Your task to perform on an android device: Search for "dell xps" on bestbuy.com, select the first entry, and add it to the cart. Image 0: 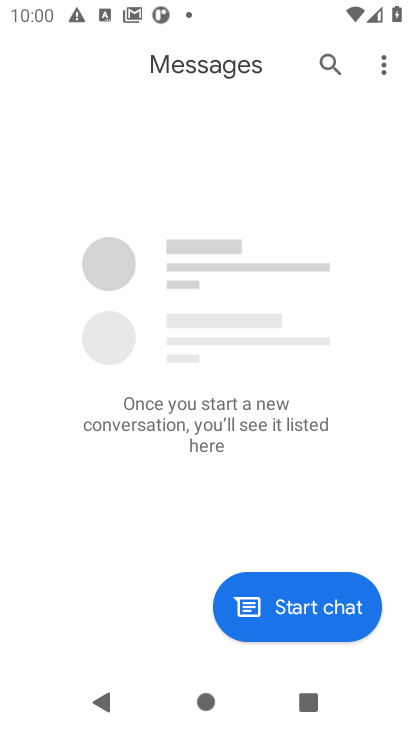
Step 0: press home button
Your task to perform on an android device: Search for "dell xps" on bestbuy.com, select the first entry, and add it to the cart. Image 1: 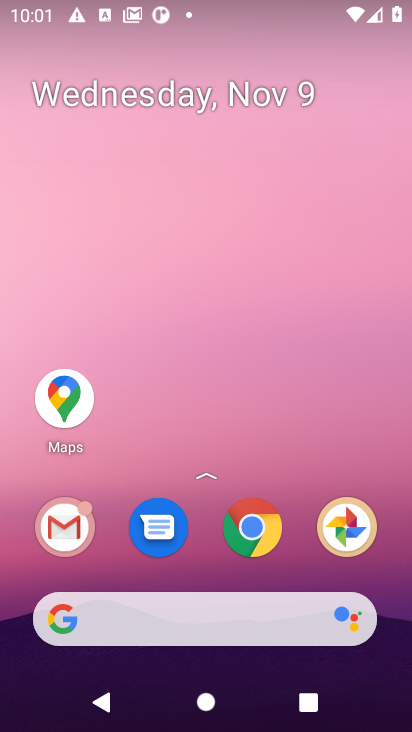
Step 1: click (249, 531)
Your task to perform on an android device: Search for "dell xps" on bestbuy.com, select the first entry, and add it to the cart. Image 2: 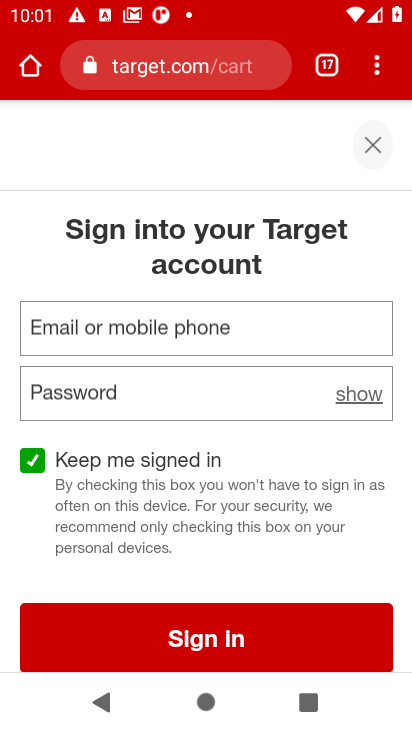
Step 2: click (168, 68)
Your task to perform on an android device: Search for "dell xps" on bestbuy.com, select the first entry, and add it to the cart. Image 3: 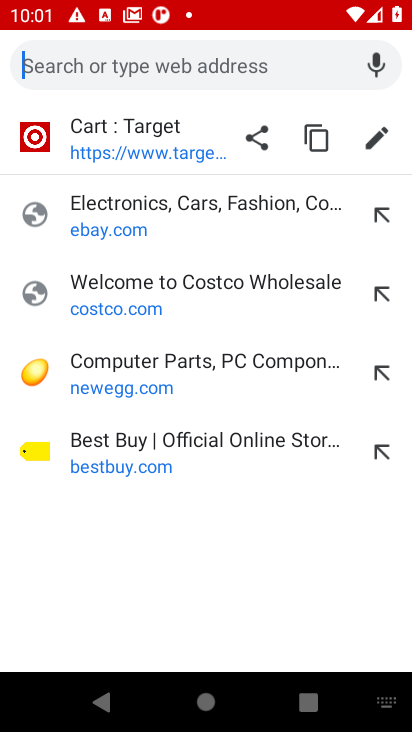
Step 3: click (124, 458)
Your task to perform on an android device: Search for "dell xps" on bestbuy.com, select the first entry, and add it to the cart. Image 4: 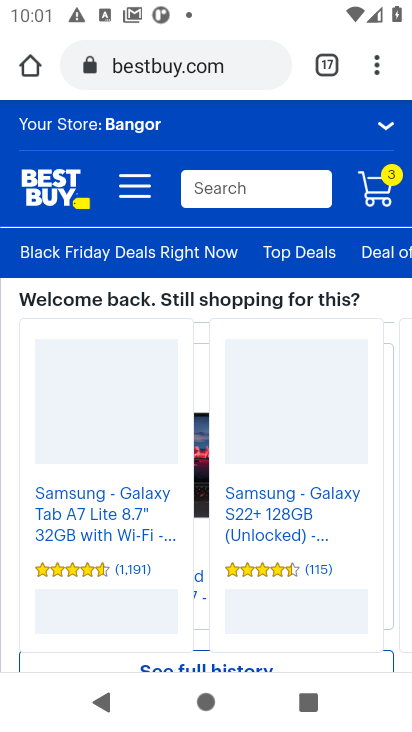
Step 4: click (234, 190)
Your task to perform on an android device: Search for "dell xps" on bestbuy.com, select the first entry, and add it to the cart. Image 5: 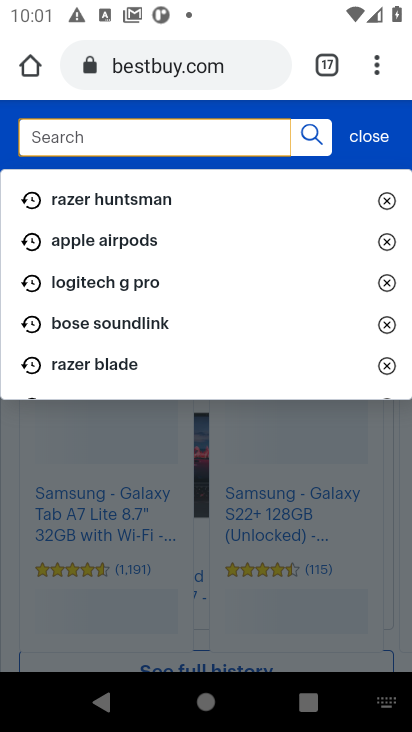
Step 5: type "dell xps"
Your task to perform on an android device: Search for "dell xps" on bestbuy.com, select the first entry, and add it to the cart. Image 6: 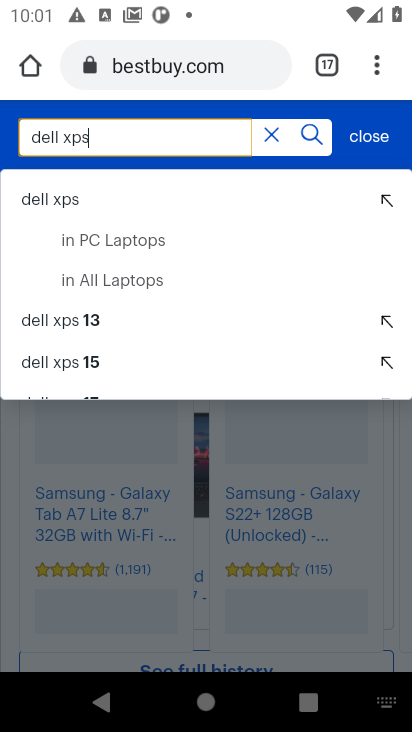
Step 6: click (35, 204)
Your task to perform on an android device: Search for "dell xps" on bestbuy.com, select the first entry, and add it to the cart. Image 7: 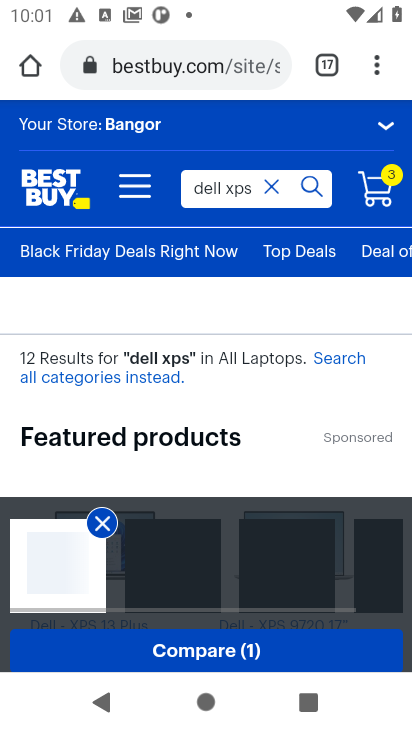
Step 7: drag from (165, 551) to (135, 241)
Your task to perform on an android device: Search for "dell xps" on bestbuy.com, select the first entry, and add it to the cart. Image 8: 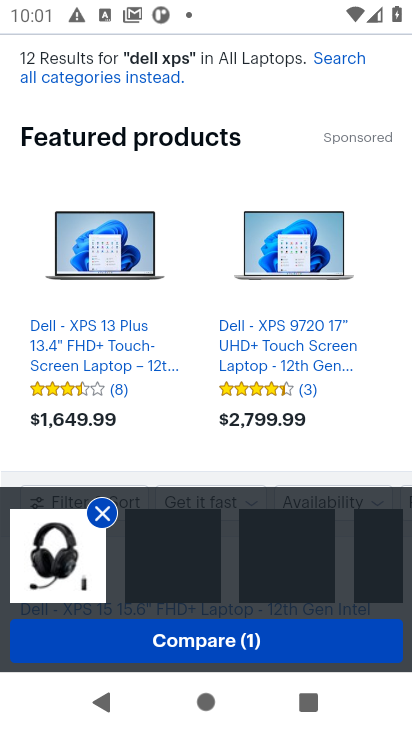
Step 8: drag from (162, 413) to (181, 110)
Your task to perform on an android device: Search for "dell xps" on bestbuy.com, select the first entry, and add it to the cart. Image 9: 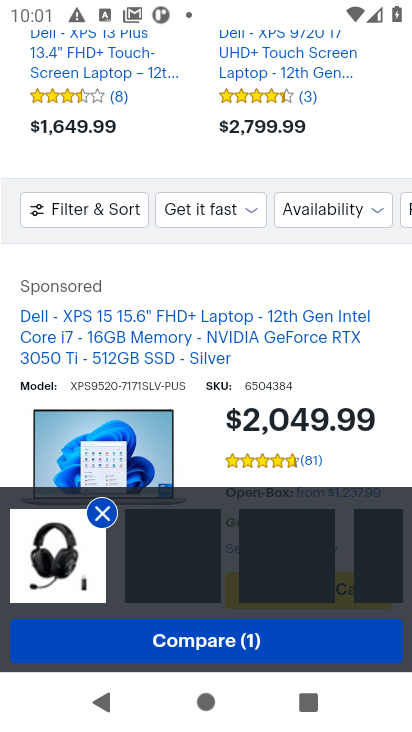
Step 9: drag from (150, 361) to (158, 141)
Your task to perform on an android device: Search for "dell xps" on bestbuy.com, select the first entry, and add it to the cart. Image 10: 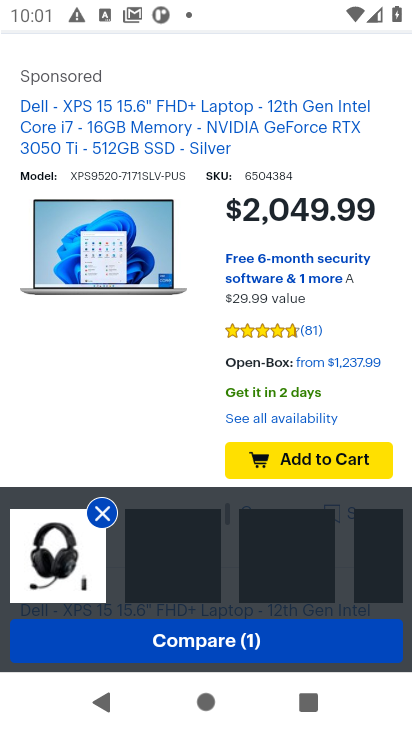
Step 10: click (314, 463)
Your task to perform on an android device: Search for "dell xps" on bestbuy.com, select the first entry, and add it to the cart. Image 11: 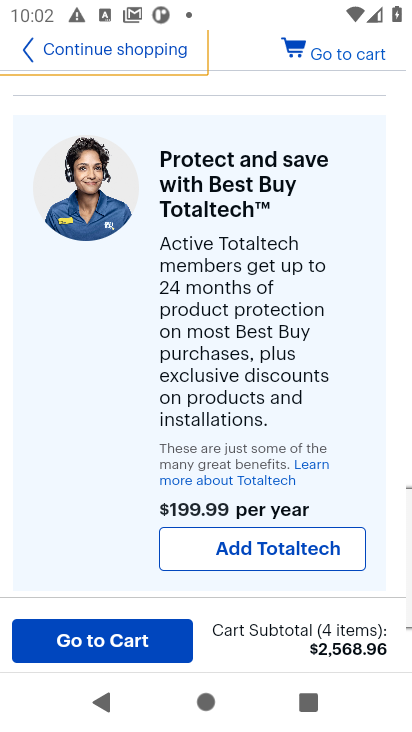
Step 11: task complete